Your task to perform on an android device: star an email in the gmail app Image 0: 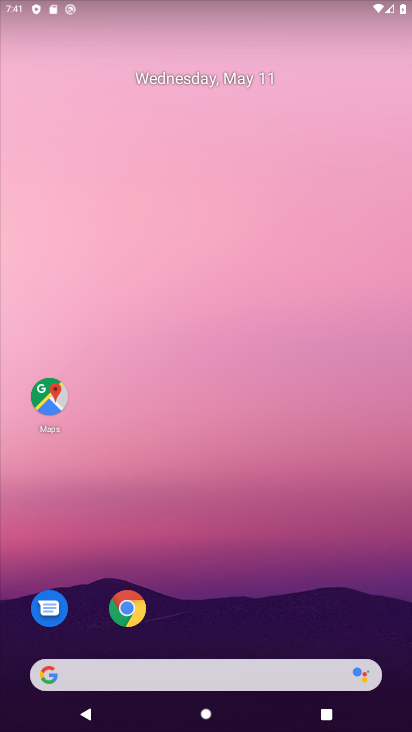
Step 0: drag from (251, 561) to (217, 74)
Your task to perform on an android device: star an email in the gmail app Image 1: 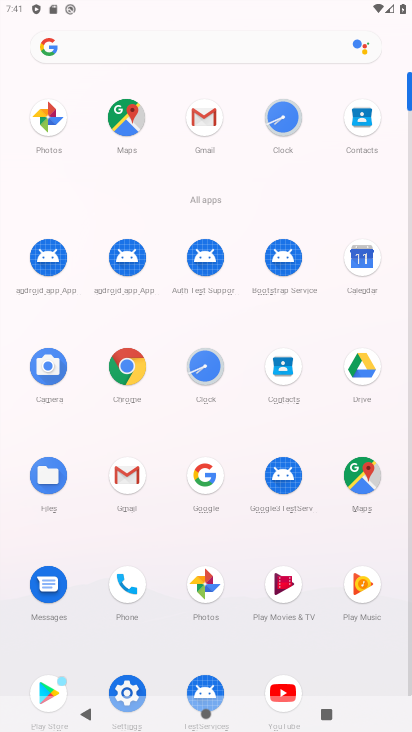
Step 1: click (207, 116)
Your task to perform on an android device: star an email in the gmail app Image 2: 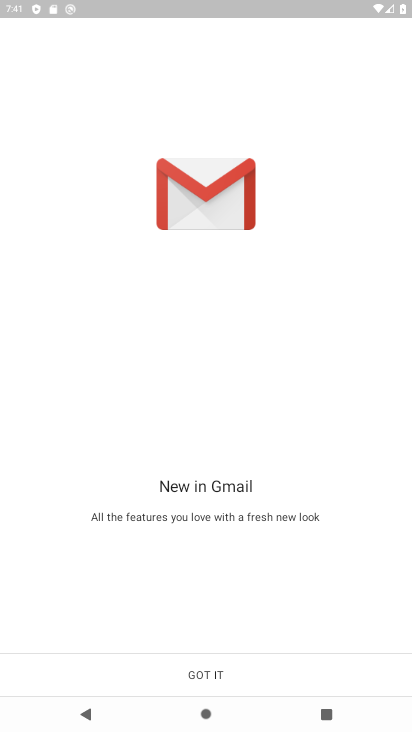
Step 2: click (225, 671)
Your task to perform on an android device: star an email in the gmail app Image 3: 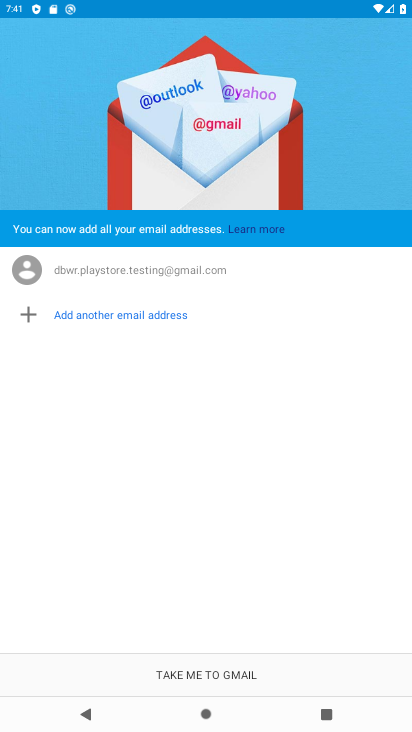
Step 3: click (224, 668)
Your task to perform on an android device: star an email in the gmail app Image 4: 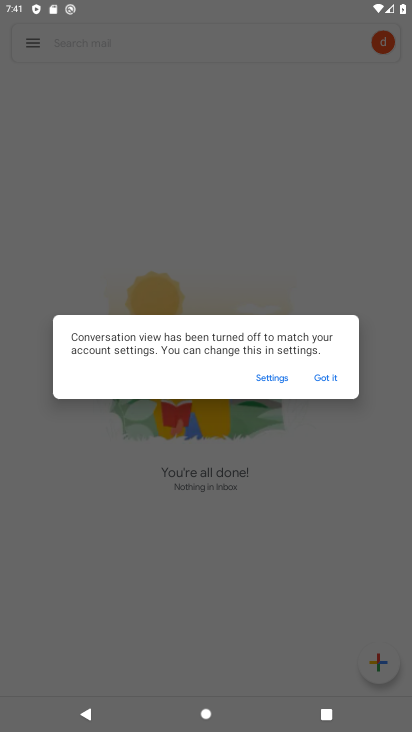
Step 4: click (320, 372)
Your task to perform on an android device: star an email in the gmail app Image 5: 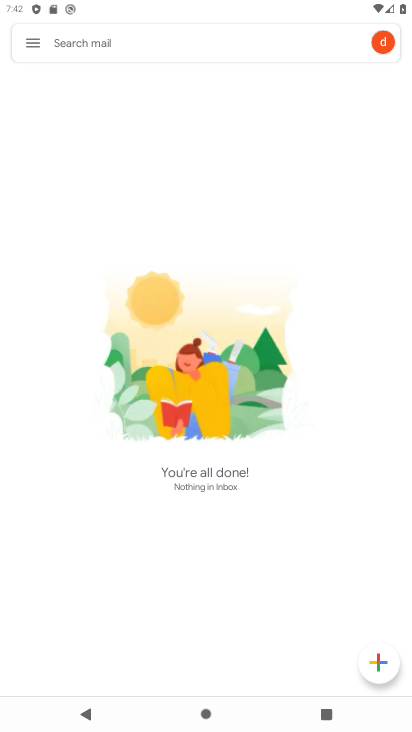
Step 5: click (32, 39)
Your task to perform on an android device: star an email in the gmail app Image 6: 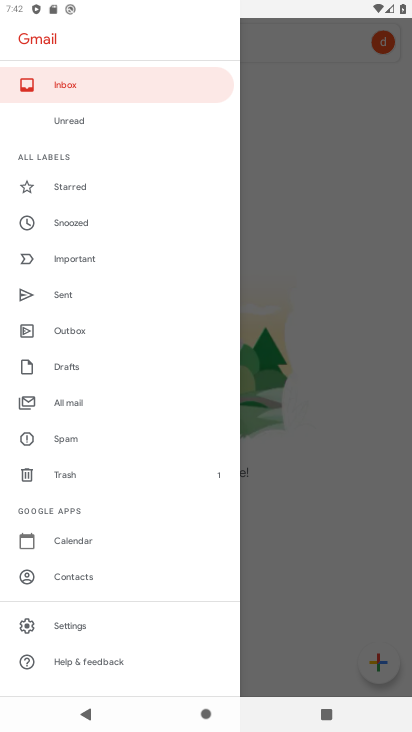
Step 6: click (81, 397)
Your task to perform on an android device: star an email in the gmail app Image 7: 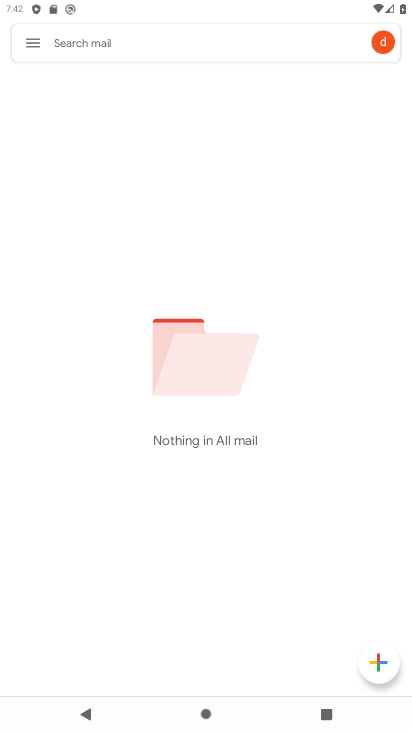
Step 7: task complete